Your task to perform on an android device: choose inbox layout in the gmail app Image 0: 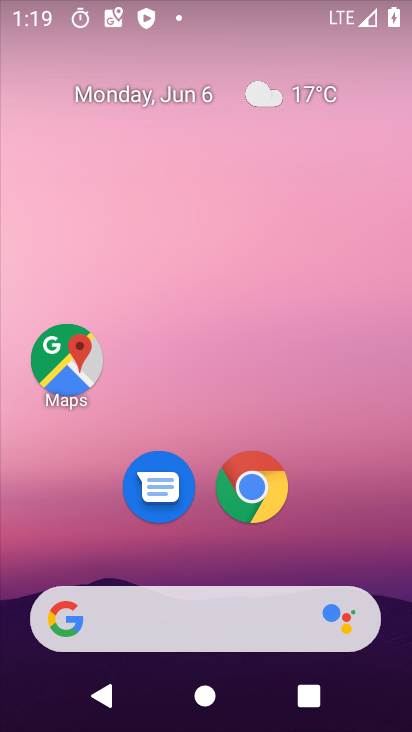
Step 0: drag from (169, 566) to (188, 113)
Your task to perform on an android device: choose inbox layout in the gmail app Image 1: 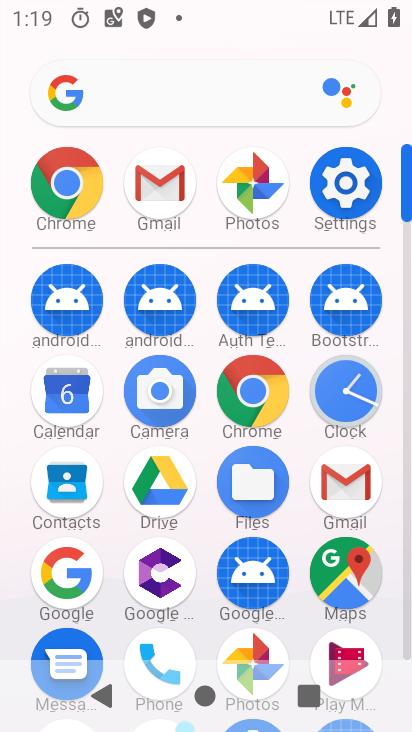
Step 1: click (144, 183)
Your task to perform on an android device: choose inbox layout in the gmail app Image 2: 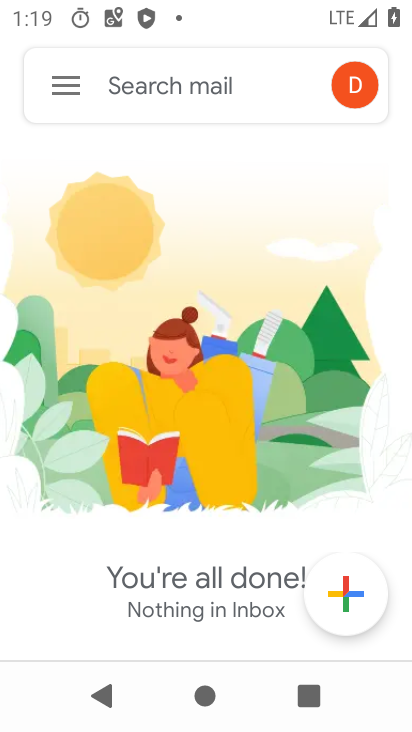
Step 2: click (23, 77)
Your task to perform on an android device: choose inbox layout in the gmail app Image 3: 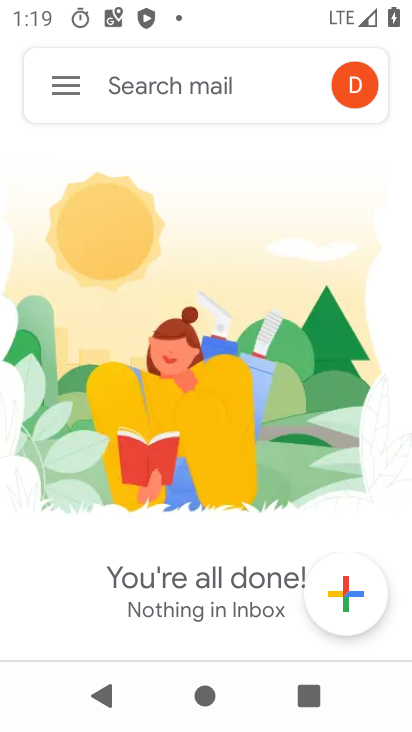
Step 3: click (76, 78)
Your task to perform on an android device: choose inbox layout in the gmail app Image 4: 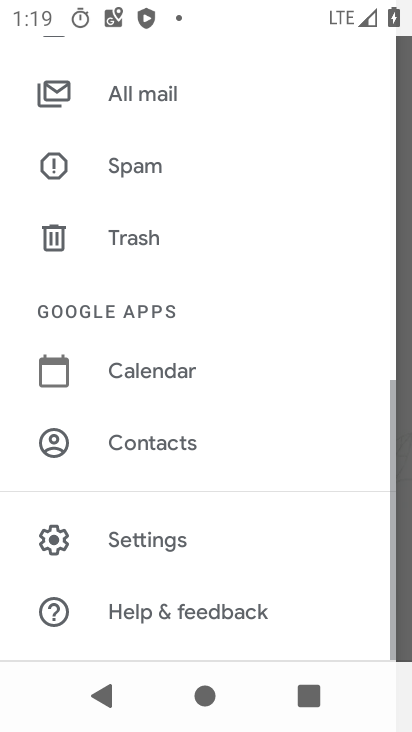
Step 4: click (170, 550)
Your task to perform on an android device: choose inbox layout in the gmail app Image 5: 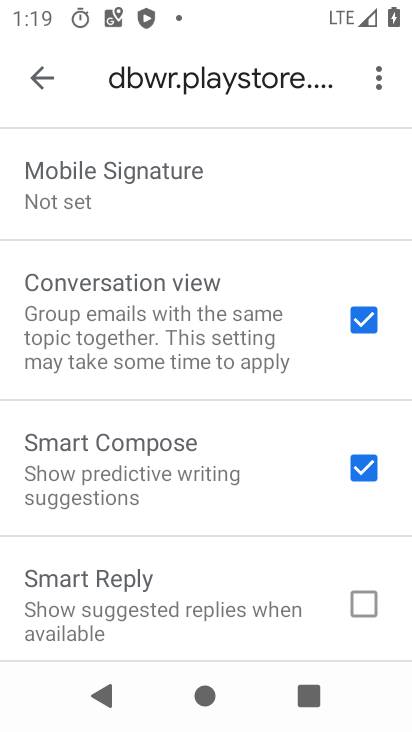
Step 5: drag from (176, 200) to (129, 600)
Your task to perform on an android device: choose inbox layout in the gmail app Image 6: 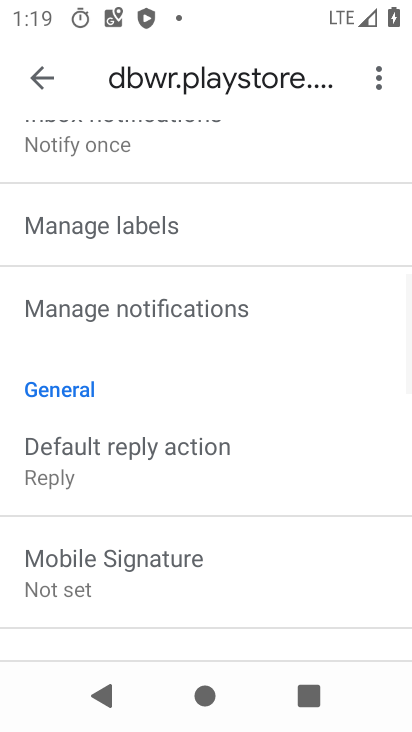
Step 6: drag from (175, 250) to (175, 665)
Your task to perform on an android device: choose inbox layout in the gmail app Image 7: 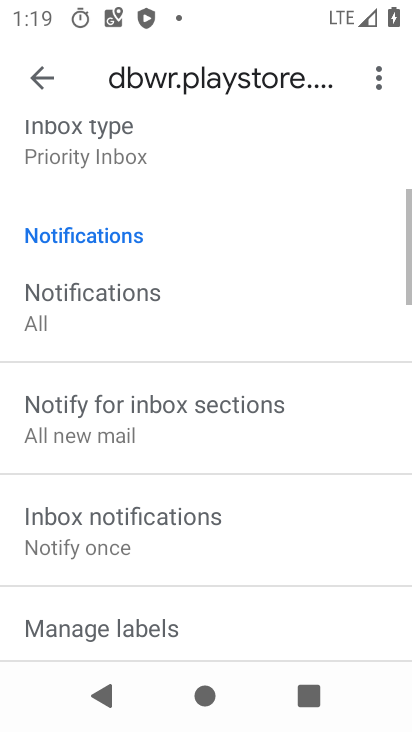
Step 7: drag from (209, 258) to (138, 699)
Your task to perform on an android device: choose inbox layout in the gmail app Image 8: 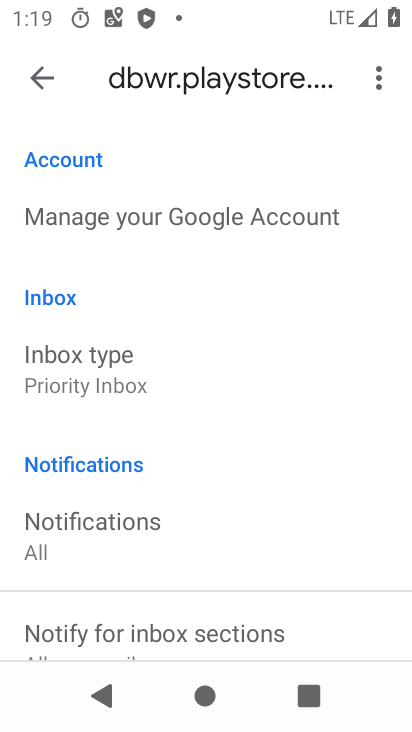
Step 8: click (64, 351)
Your task to perform on an android device: choose inbox layout in the gmail app Image 9: 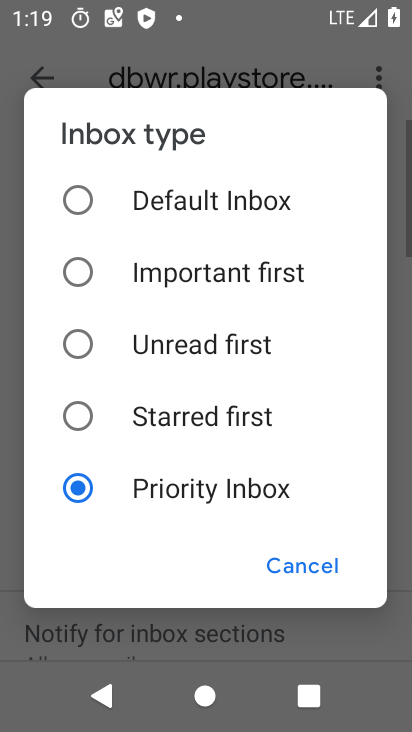
Step 9: click (167, 190)
Your task to perform on an android device: choose inbox layout in the gmail app Image 10: 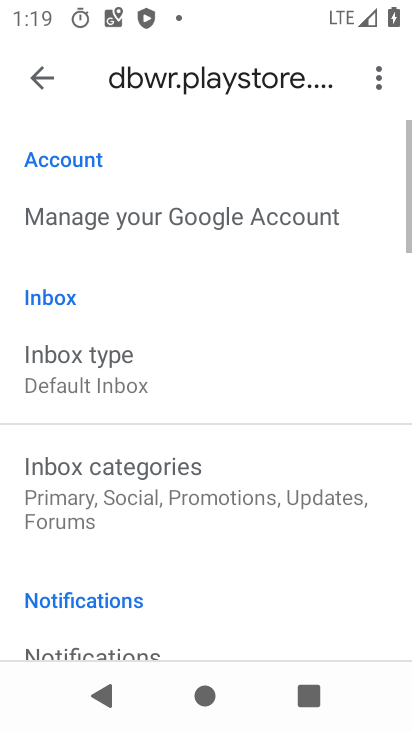
Step 10: task complete